Your task to perform on an android device: Open Google Maps and go to "Timeline" Image 0: 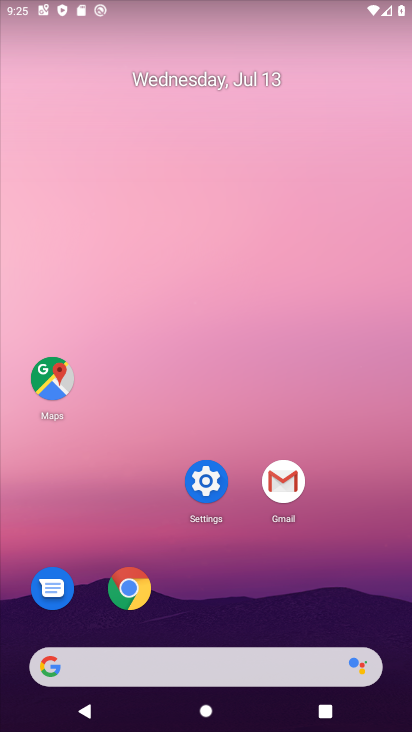
Step 0: click (51, 379)
Your task to perform on an android device: Open Google Maps and go to "Timeline" Image 1: 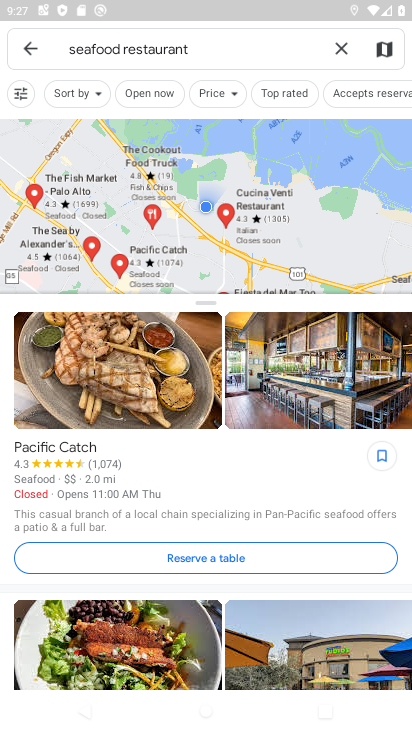
Step 1: click (336, 42)
Your task to perform on an android device: Open Google Maps and go to "Timeline" Image 2: 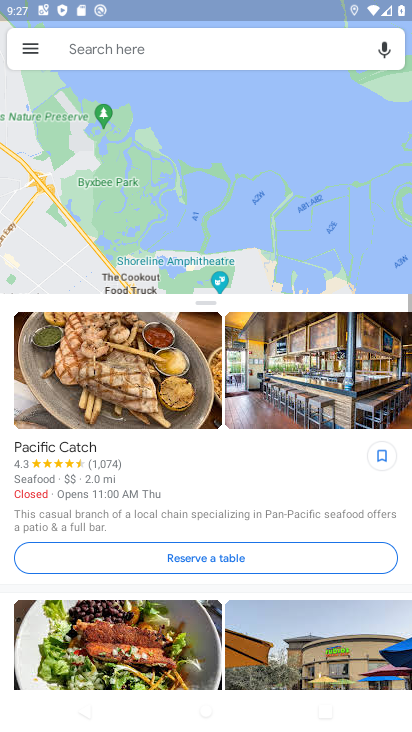
Step 2: click (37, 50)
Your task to perform on an android device: Open Google Maps and go to "Timeline" Image 3: 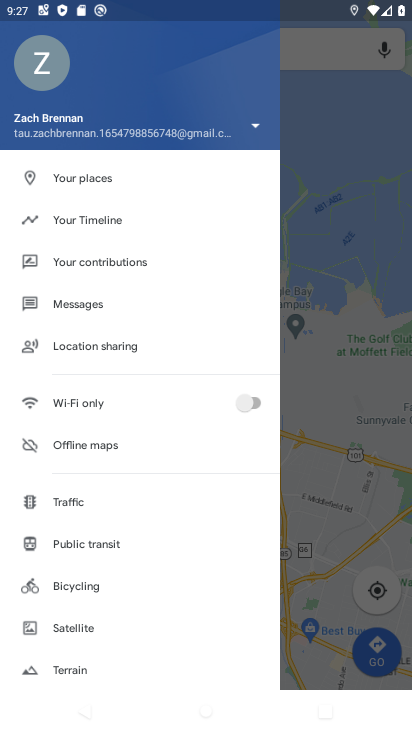
Step 3: click (68, 217)
Your task to perform on an android device: Open Google Maps and go to "Timeline" Image 4: 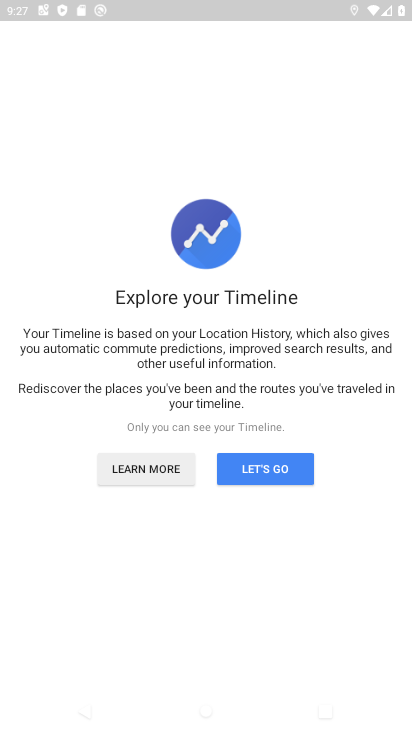
Step 4: click (260, 467)
Your task to perform on an android device: Open Google Maps and go to "Timeline" Image 5: 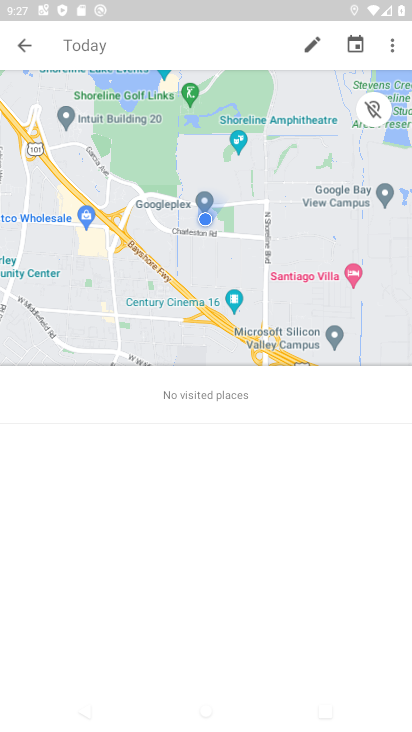
Step 5: task complete